Your task to perform on an android device: open chrome privacy settings Image 0: 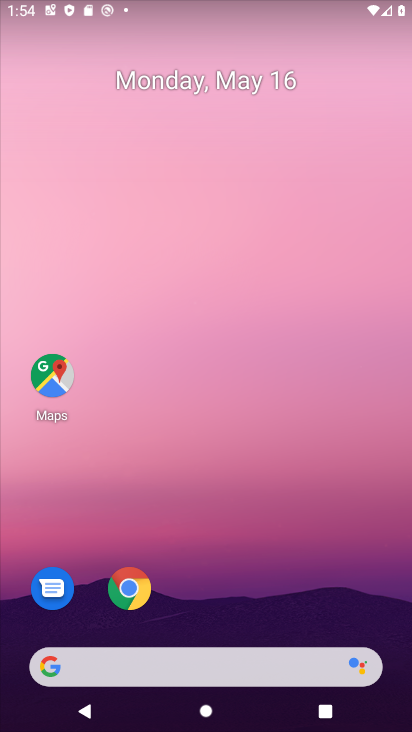
Step 0: click (129, 587)
Your task to perform on an android device: open chrome privacy settings Image 1: 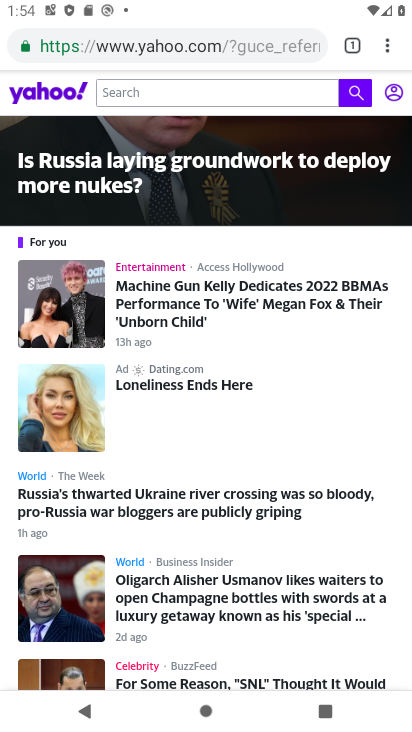
Step 1: click (385, 45)
Your task to perform on an android device: open chrome privacy settings Image 2: 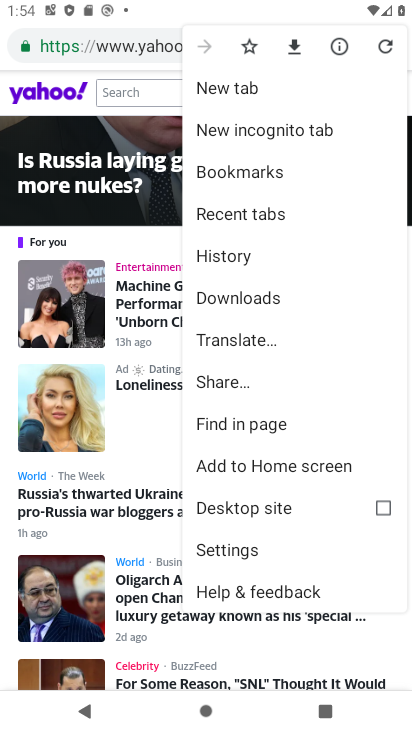
Step 2: click (225, 547)
Your task to perform on an android device: open chrome privacy settings Image 3: 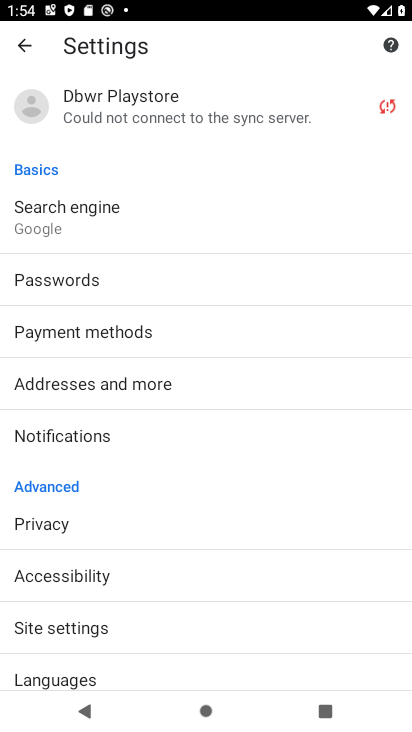
Step 3: drag from (127, 582) to (150, 502)
Your task to perform on an android device: open chrome privacy settings Image 4: 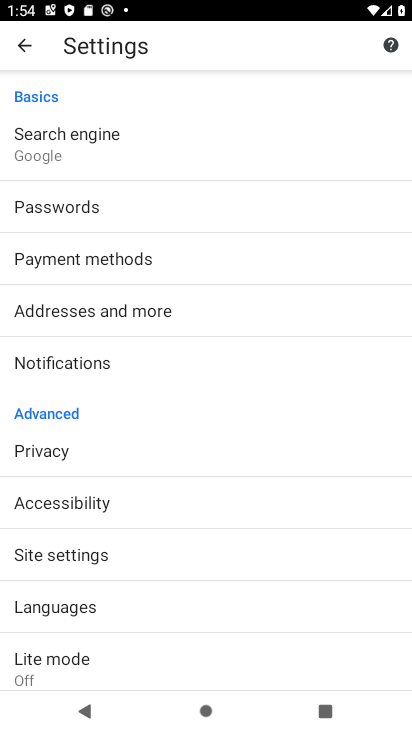
Step 4: click (49, 447)
Your task to perform on an android device: open chrome privacy settings Image 5: 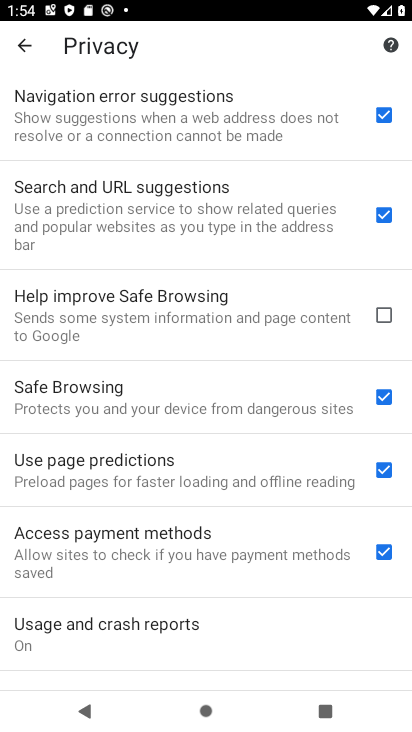
Step 5: task complete